Your task to perform on an android device: check google app version Image 0: 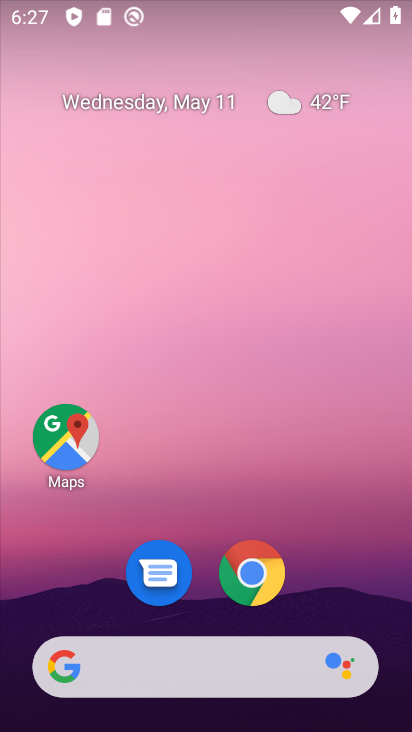
Step 0: drag from (311, 574) to (274, 185)
Your task to perform on an android device: check google app version Image 1: 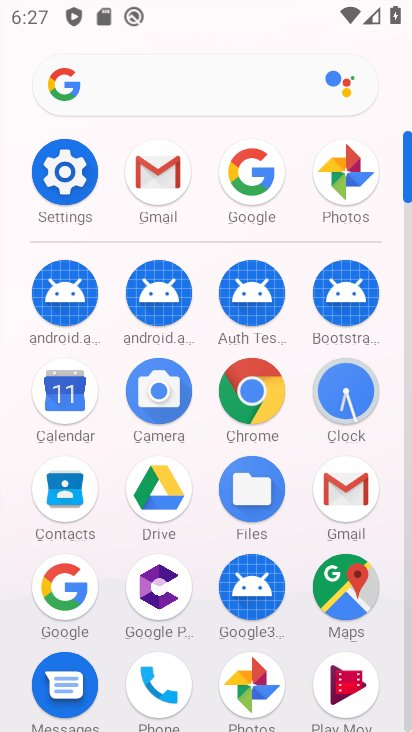
Step 1: click (68, 606)
Your task to perform on an android device: check google app version Image 2: 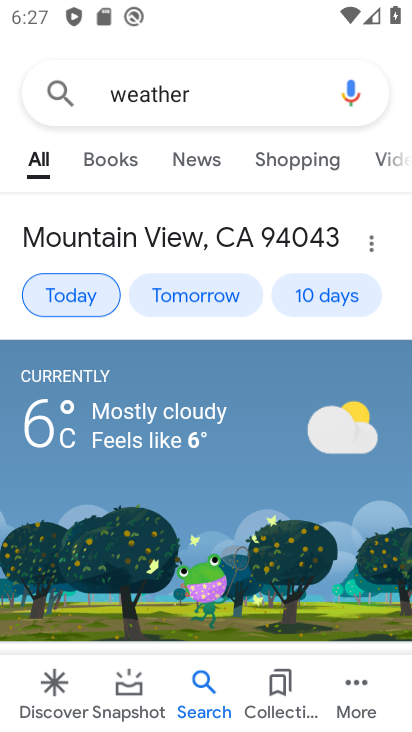
Step 2: click (360, 690)
Your task to perform on an android device: check google app version Image 3: 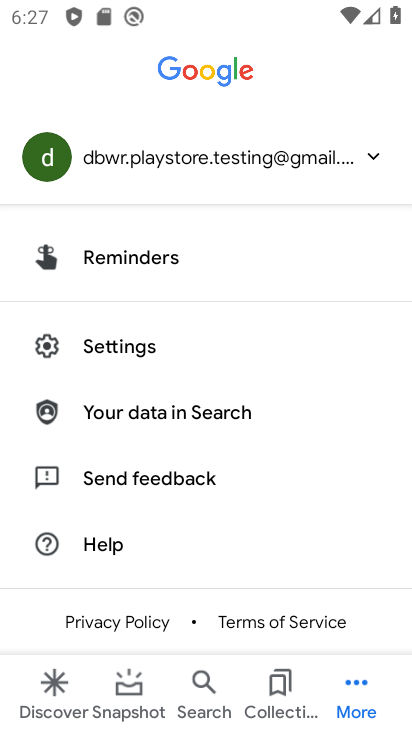
Step 3: click (133, 334)
Your task to perform on an android device: check google app version Image 4: 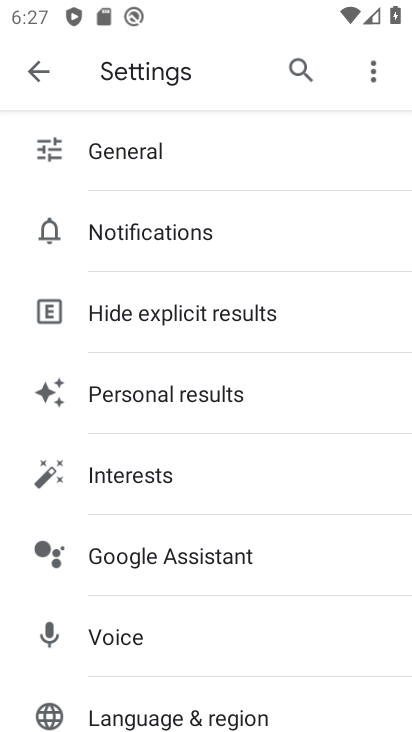
Step 4: drag from (193, 664) to (223, 399)
Your task to perform on an android device: check google app version Image 5: 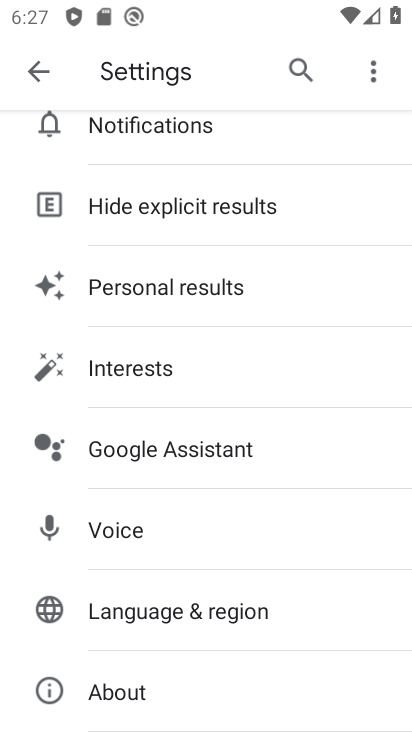
Step 5: click (125, 710)
Your task to perform on an android device: check google app version Image 6: 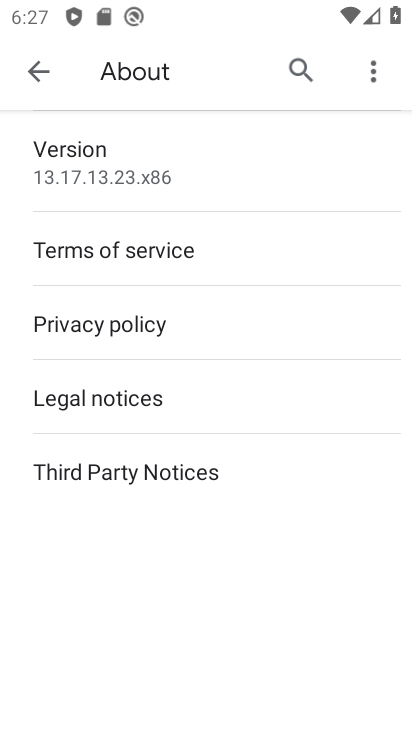
Step 6: task complete